Your task to perform on an android device: turn off airplane mode Image 0: 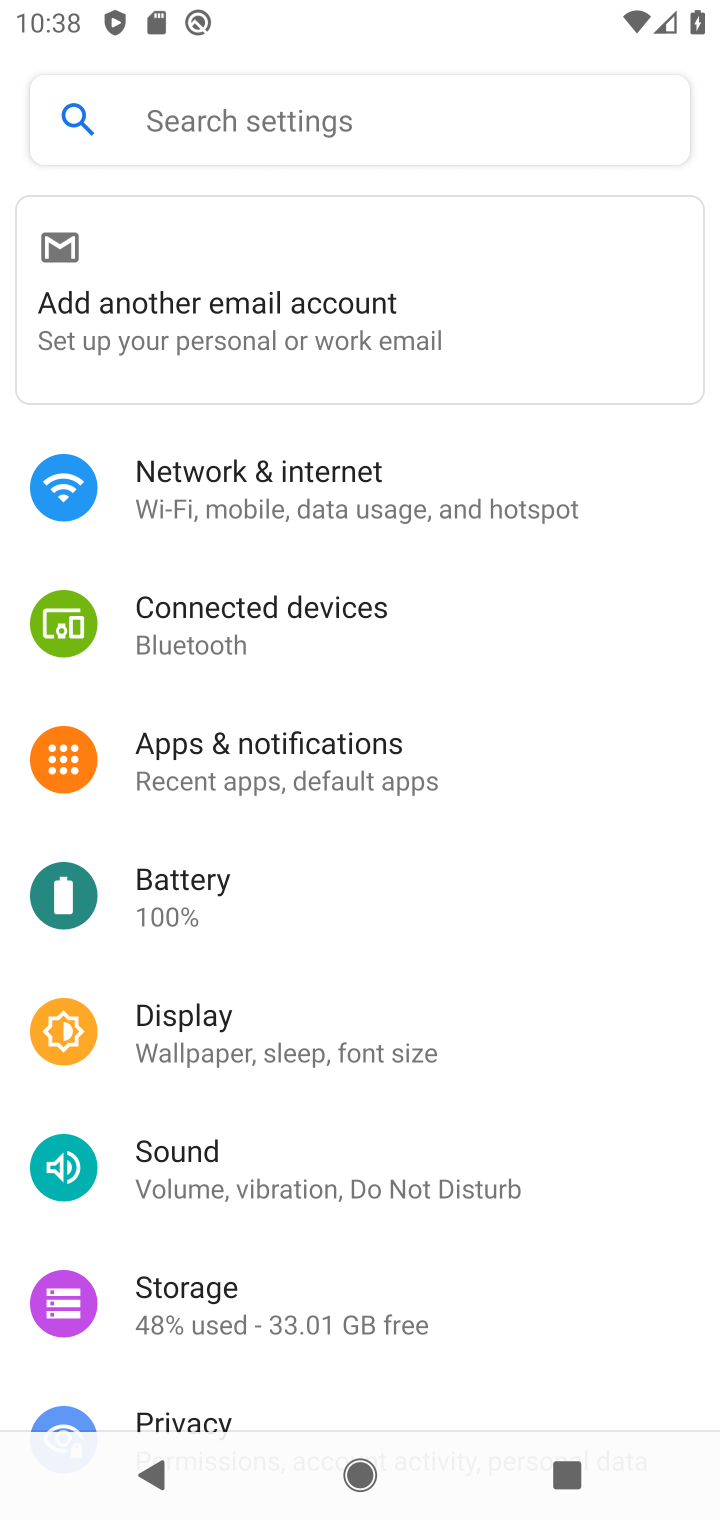
Step 0: click (251, 479)
Your task to perform on an android device: turn off airplane mode Image 1: 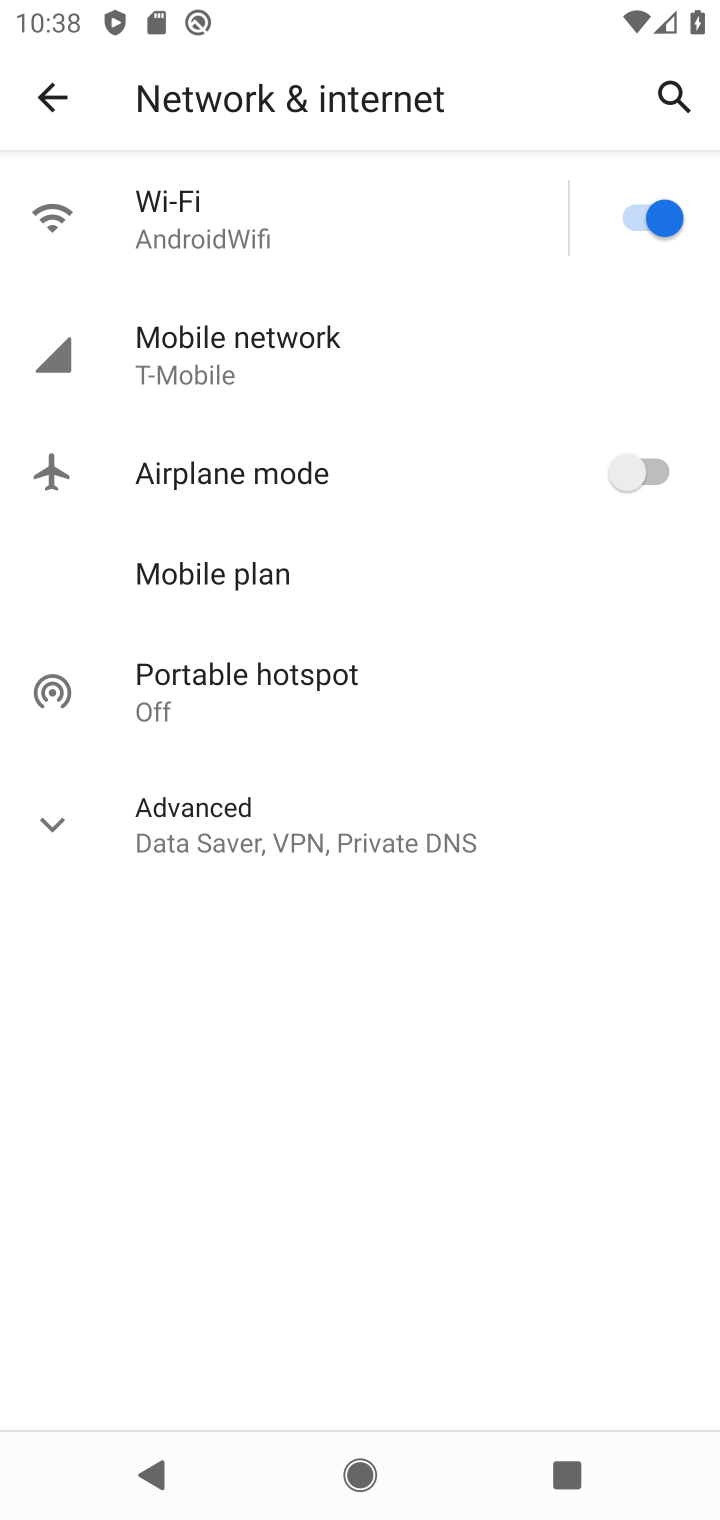
Step 1: task complete